Your task to perform on an android device: toggle airplane mode Image 0: 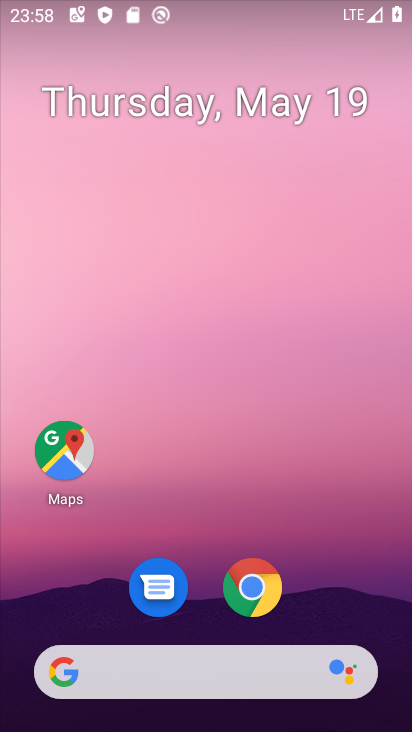
Step 0: drag from (246, 690) to (144, 202)
Your task to perform on an android device: toggle airplane mode Image 1: 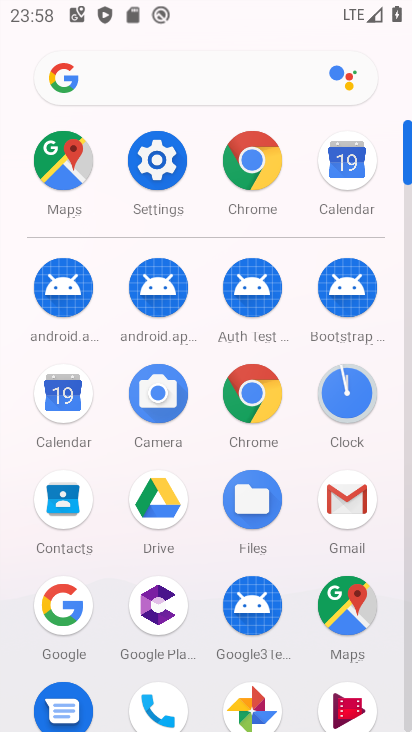
Step 1: click (153, 176)
Your task to perform on an android device: toggle airplane mode Image 2: 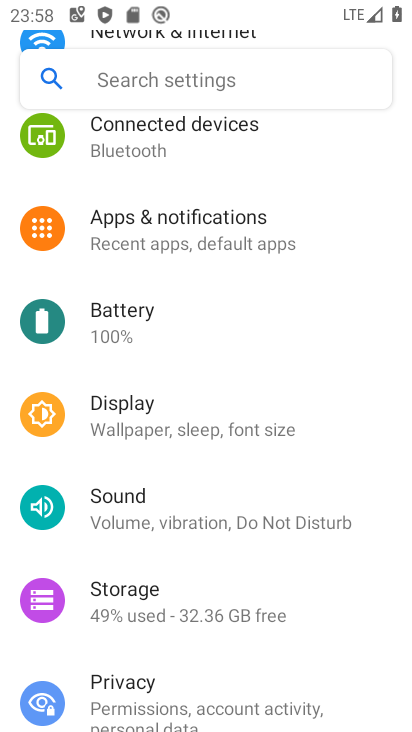
Step 2: drag from (151, 175) to (278, 427)
Your task to perform on an android device: toggle airplane mode Image 3: 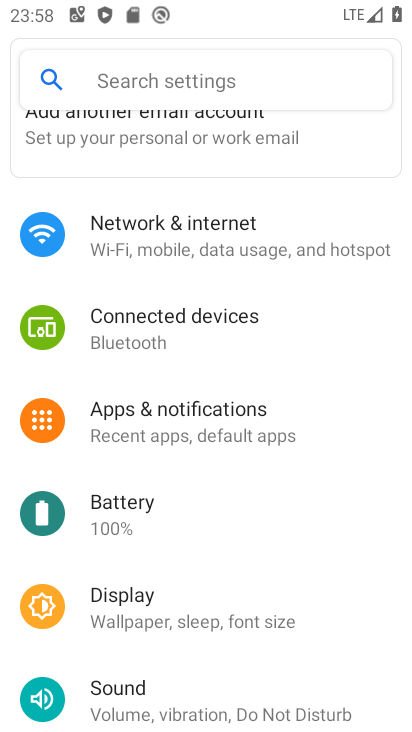
Step 3: click (209, 226)
Your task to perform on an android device: toggle airplane mode Image 4: 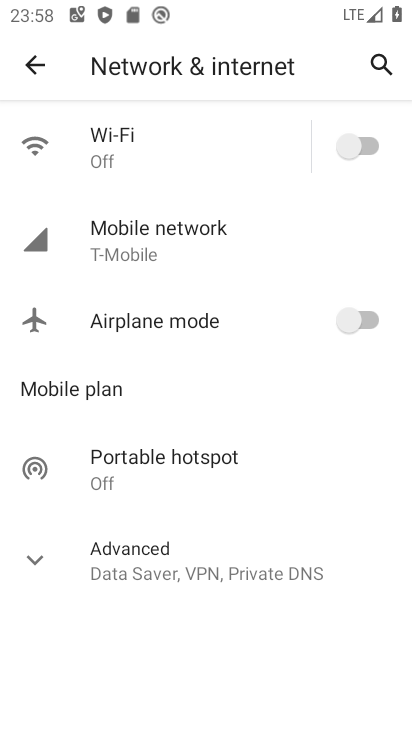
Step 4: task complete